Your task to perform on an android device: turn pop-ups on in chrome Image 0: 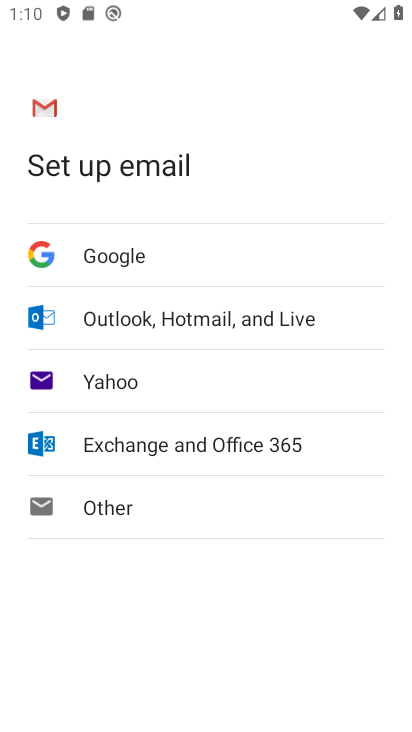
Step 0: press back button
Your task to perform on an android device: turn pop-ups on in chrome Image 1: 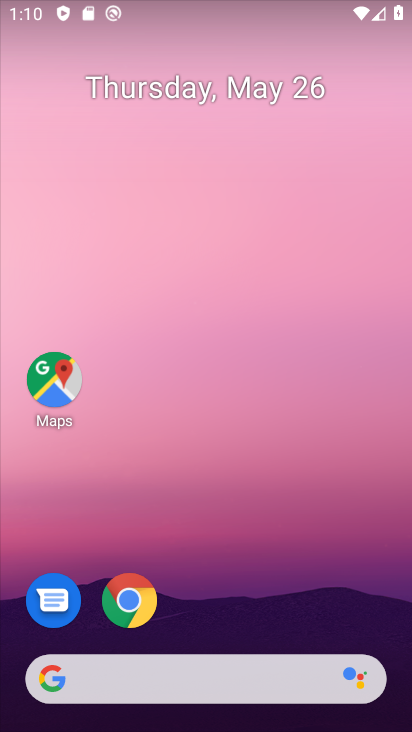
Step 1: click (129, 600)
Your task to perform on an android device: turn pop-ups on in chrome Image 2: 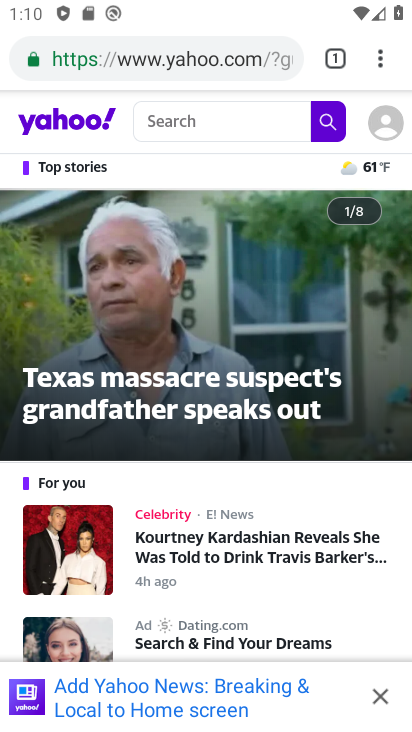
Step 2: click (380, 60)
Your task to perform on an android device: turn pop-ups on in chrome Image 3: 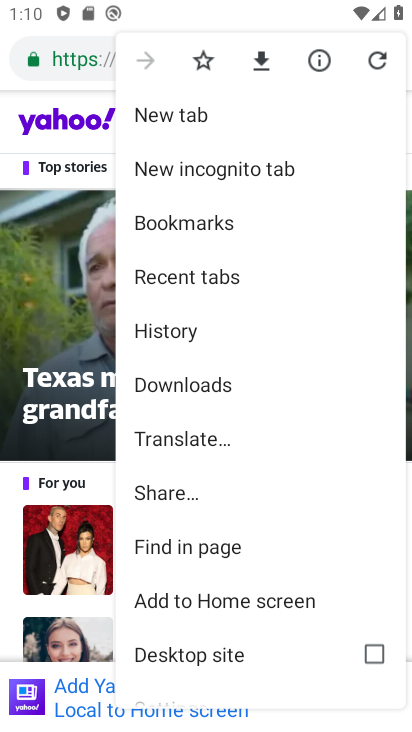
Step 3: drag from (194, 512) to (224, 422)
Your task to perform on an android device: turn pop-ups on in chrome Image 4: 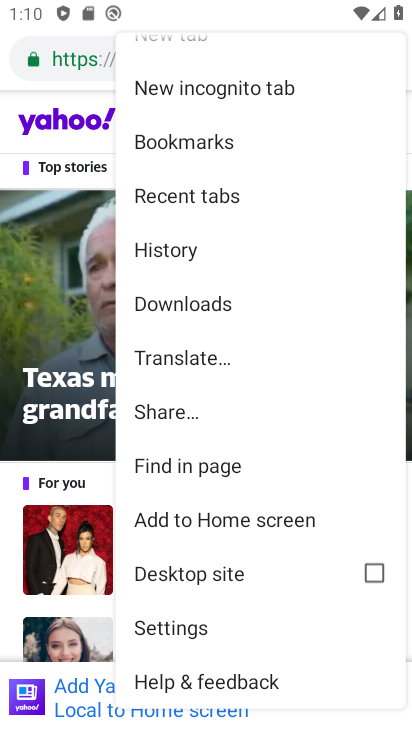
Step 4: click (168, 628)
Your task to perform on an android device: turn pop-ups on in chrome Image 5: 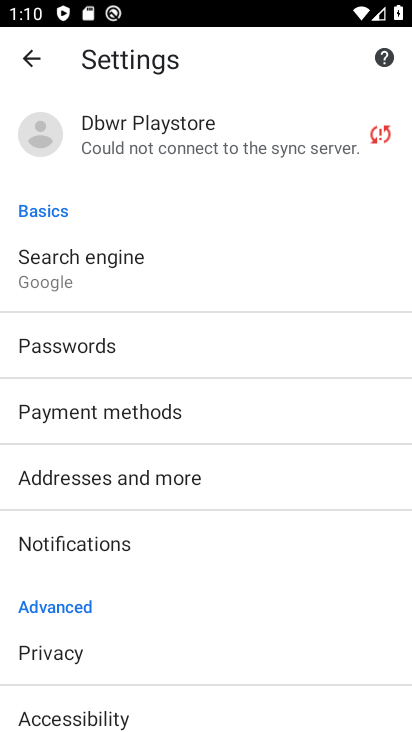
Step 5: drag from (89, 575) to (100, 463)
Your task to perform on an android device: turn pop-ups on in chrome Image 6: 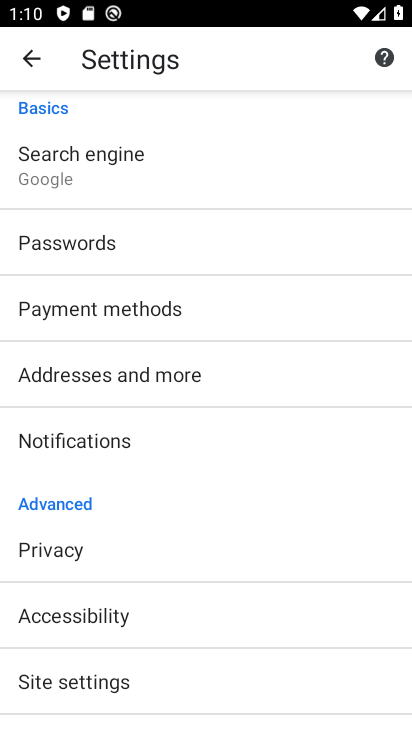
Step 6: drag from (100, 565) to (140, 481)
Your task to perform on an android device: turn pop-ups on in chrome Image 7: 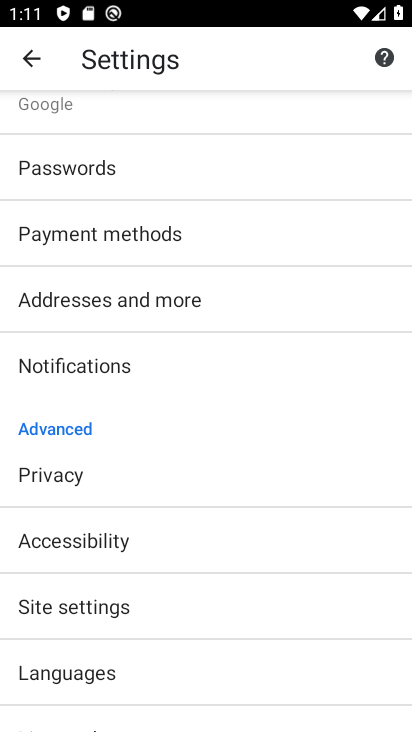
Step 7: drag from (80, 582) to (115, 510)
Your task to perform on an android device: turn pop-ups on in chrome Image 8: 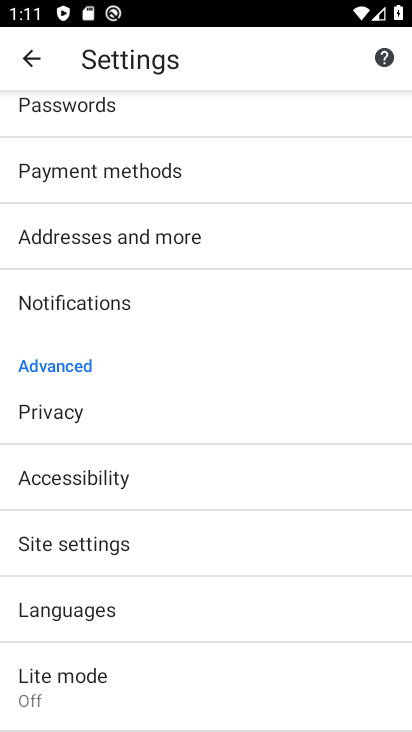
Step 8: click (84, 548)
Your task to perform on an android device: turn pop-ups on in chrome Image 9: 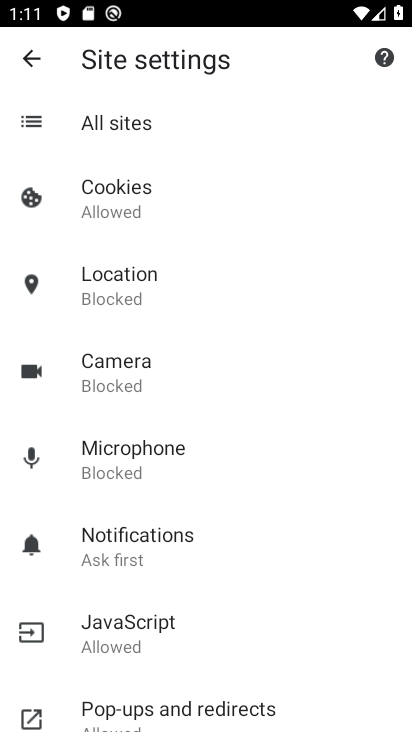
Step 9: drag from (167, 643) to (182, 558)
Your task to perform on an android device: turn pop-ups on in chrome Image 10: 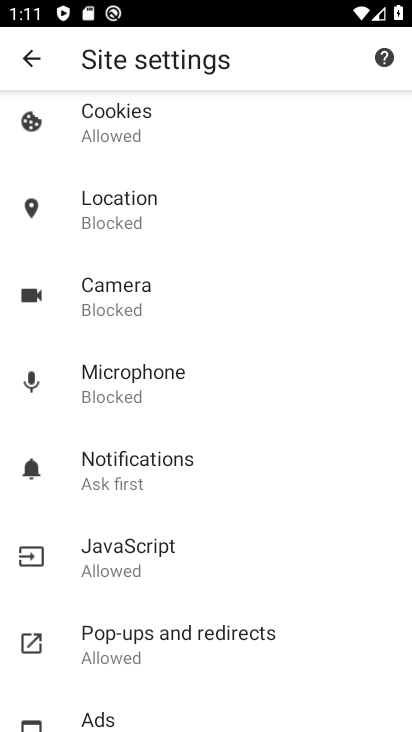
Step 10: drag from (166, 669) to (210, 576)
Your task to perform on an android device: turn pop-ups on in chrome Image 11: 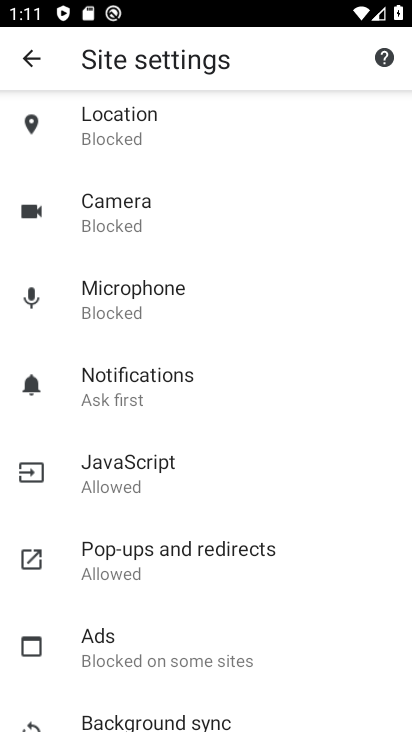
Step 11: click (218, 558)
Your task to perform on an android device: turn pop-ups on in chrome Image 12: 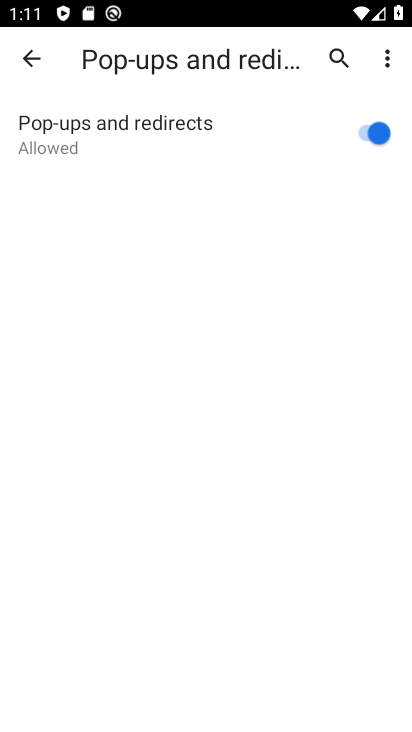
Step 12: task complete